Your task to perform on an android device: Open notification settings Image 0: 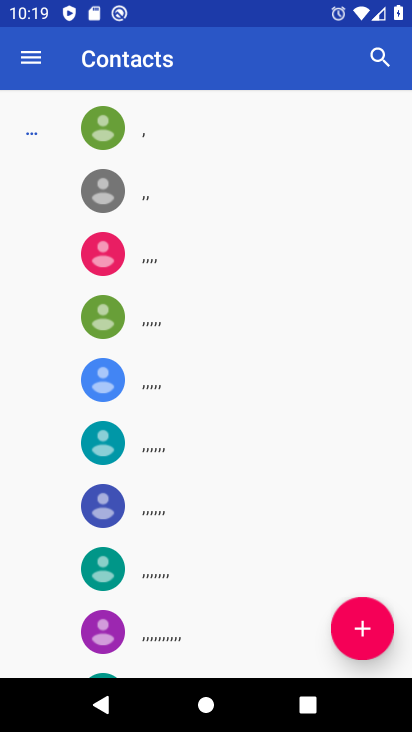
Step 0: press home button
Your task to perform on an android device: Open notification settings Image 1: 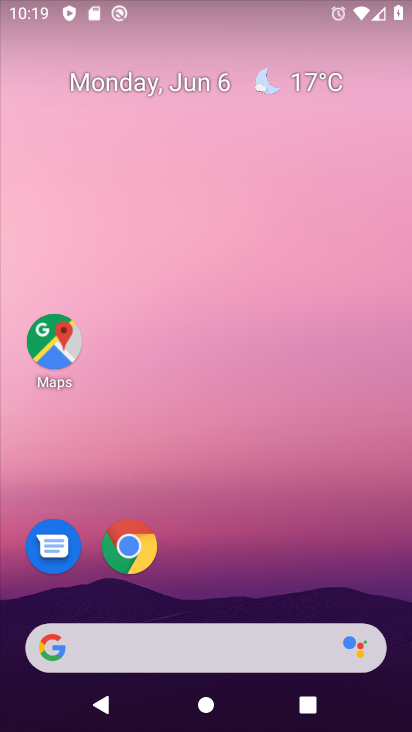
Step 1: drag from (230, 329) to (316, 10)
Your task to perform on an android device: Open notification settings Image 2: 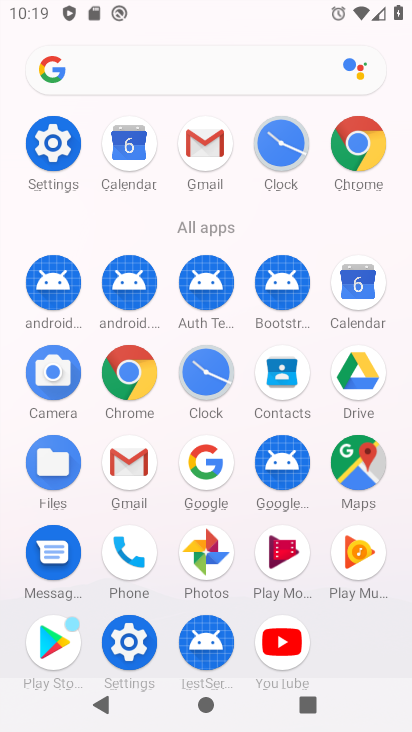
Step 2: click (55, 151)
Your task to perform on an android device: Open notification settings Image 3: 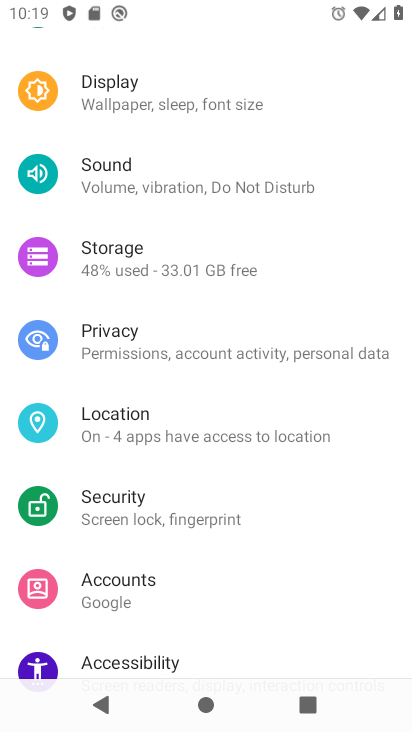
Step 3: drag from (203, 186) to (214, 383)
Your task to perform on an android device: Open notification settings Image 4: 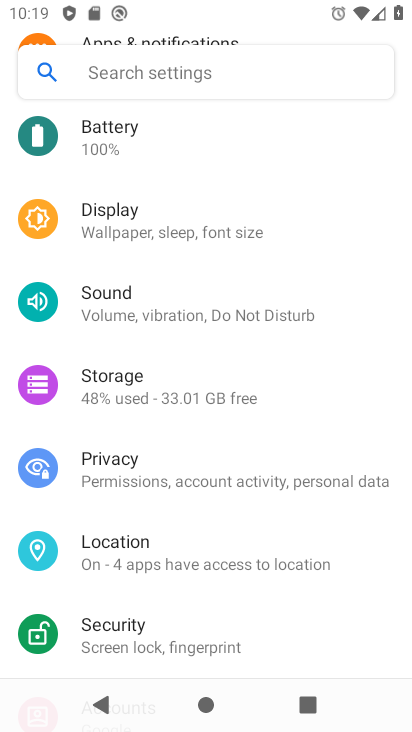
Step 4: drag from (209, 257) to (209, 633)
Your task to perform on an android device: Open notification settings Image 5: 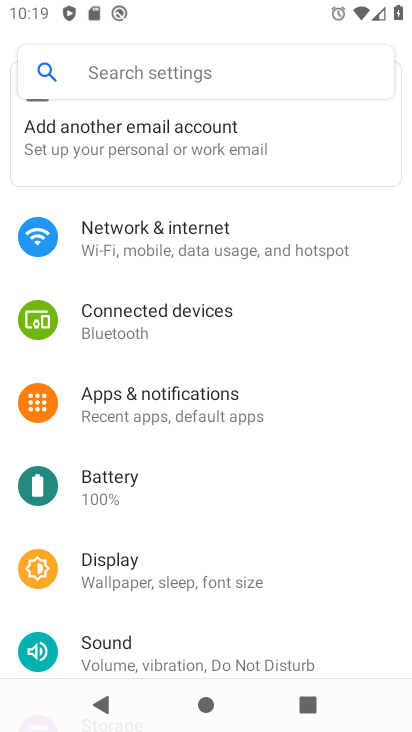
Step 5: click (183, 415)
Your task to perform on an android device: Open notification settings Image 6: 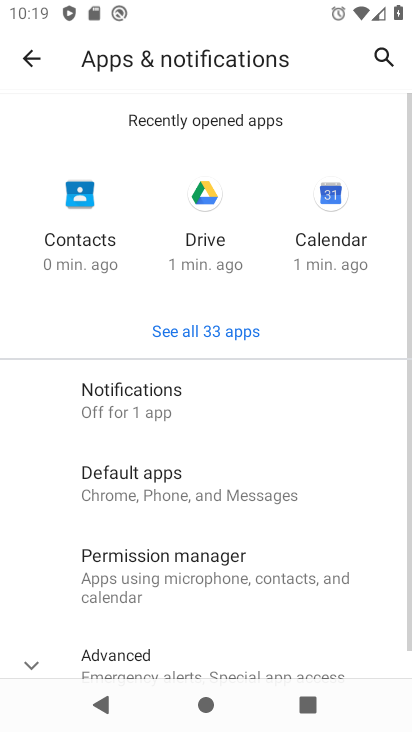
Step 6: click (165, 405)
Your task to perform on an android device: Open notification settings Image 7: 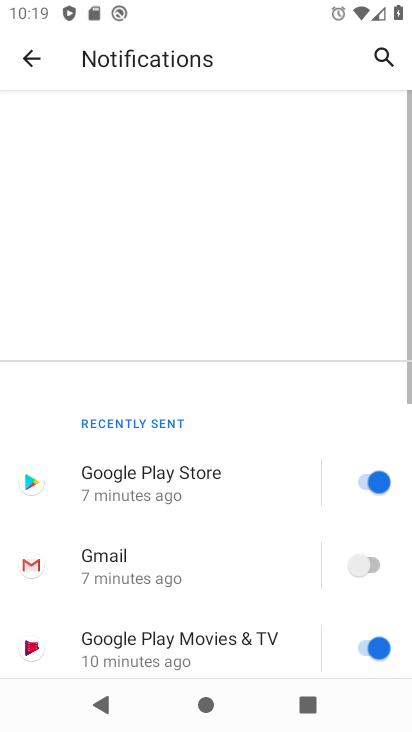
Step 7: task complete